Your task to perform on an android device: install app "Google Keep" Image 0: 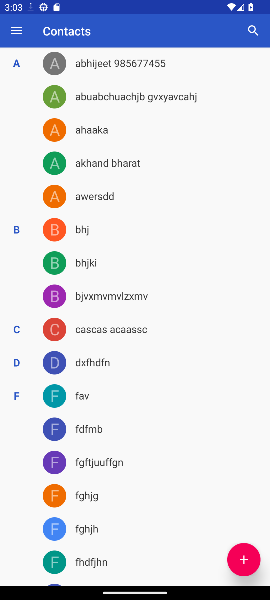
Step 0: press home button
Your task to perform on an android device: install app "Google Keep" Image 1: 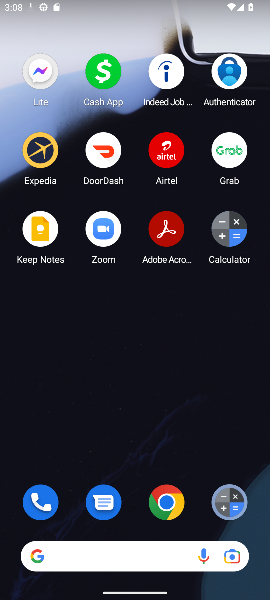
Step 1: drag from (137, 521) to (122, 16)
Your task to perform on an android device: install app "Google Keep" Image 2: 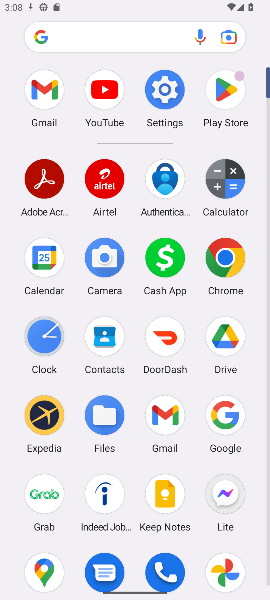
Step 2: click (220, 77)
Your task to perform on an android device: install app "Google Keep" Image 3: 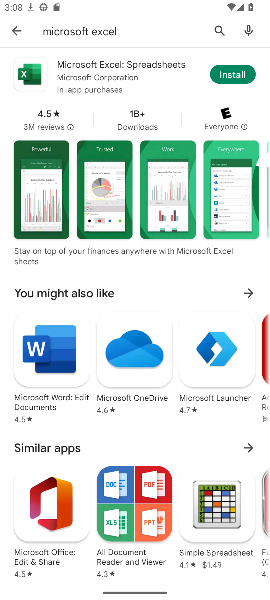
Step 3: click (219, 37)
Your task to perform on an android device: install app "Google Keep" Image 4: 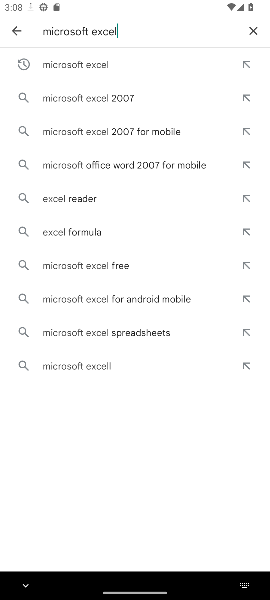
Step 4: click (249, 37)
Your task to perform on an android device: install app "Google Keep" Image 5: 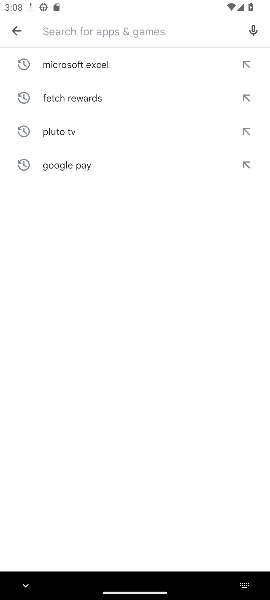
Step 5: type "google keeps"
Your task to perform on an android device: install app "Google Keep" Image 6: 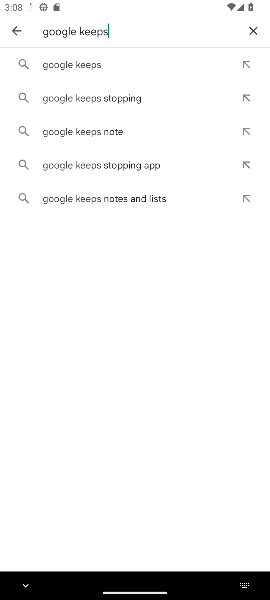
Step 6: click (135, 63)
Your task to perform on an android device: install app "Google Keep" Image 7: 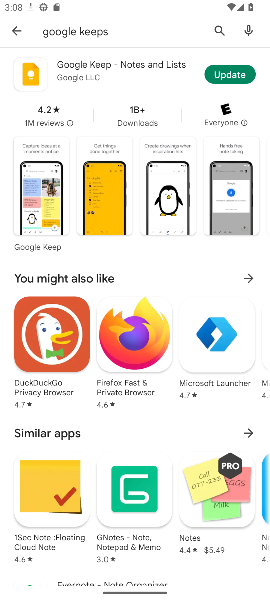
Step 7: click (214, 73)
Your task to perform on an android device: install app "Google Keep" Image 8: 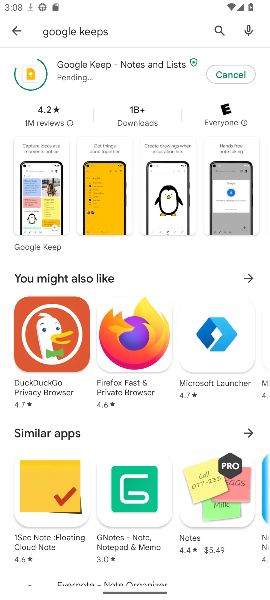
Step 8: task complete